Your task to perform on an android device: When is my next meeting? Image 0: 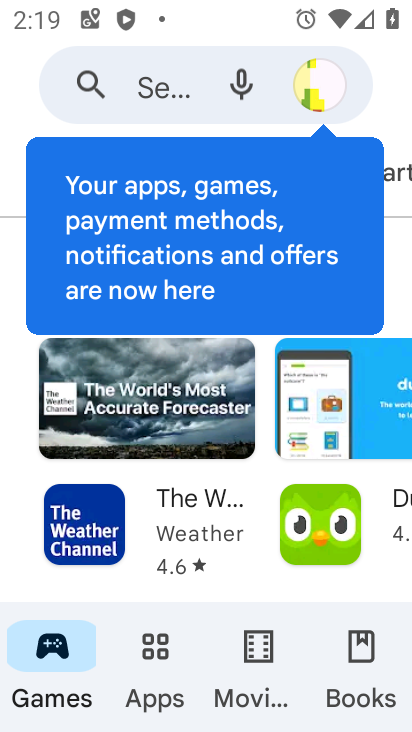
Step 0: press home button
Your task to perform on an android device: When is my next meeting? Image 1: 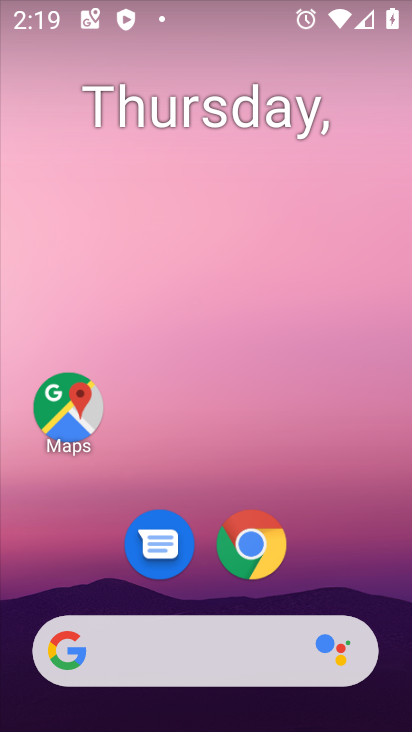
Step 1: drag from (215, 474) to (242, 154)
Your task to perform on an android device: When is my next meeting? Image 2: 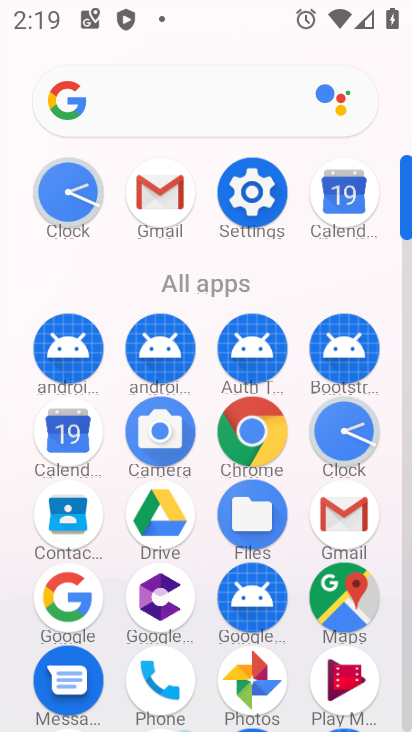
Step 2: click (320, 188)
Your task to perform on an android device: When is my next meeting? Image 3: 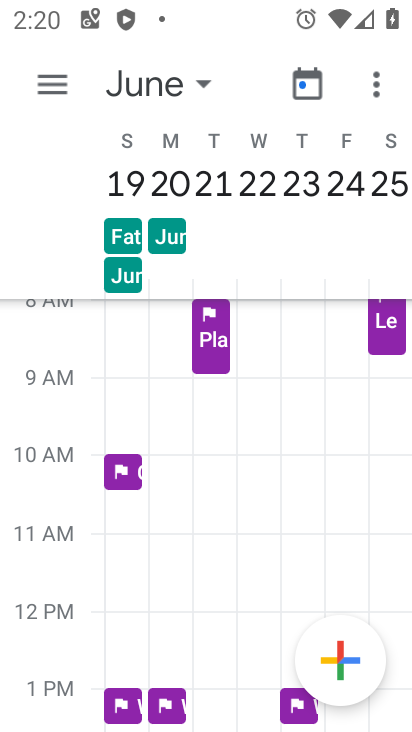
Step 3: click (171, 84)
Your task to perform on an android device: When is my next meeting? Image 4: 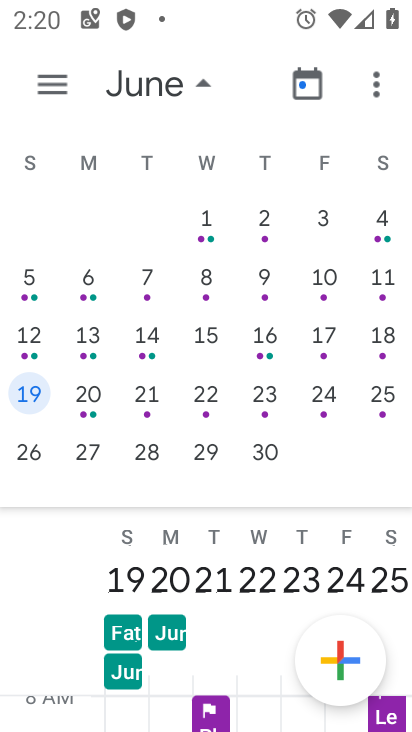
Step 4: drag from (41, 305) to (352, 308)
Your task to perform on an android device: When is my next meeting? Image 5: 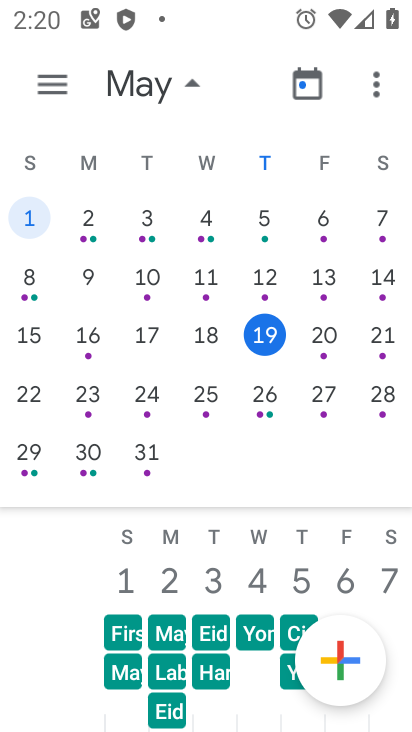
Step 5: click (310, 334)
Your task to perform on an android device: When is my next meeting? Image 6: 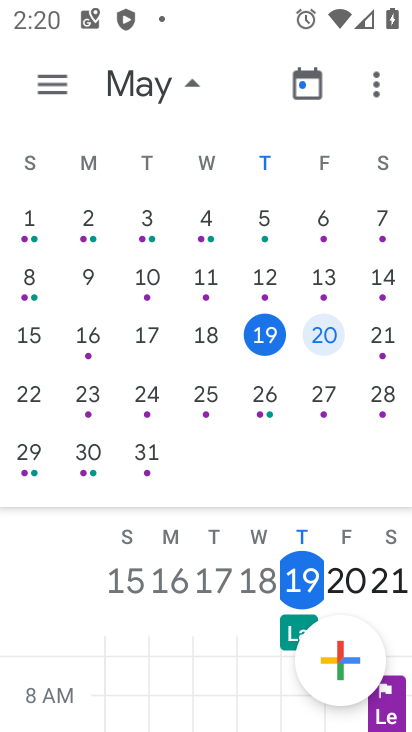
Step 6: click (345, 572)
Your task to perform on an android device: When is my next meeting? Image 7: 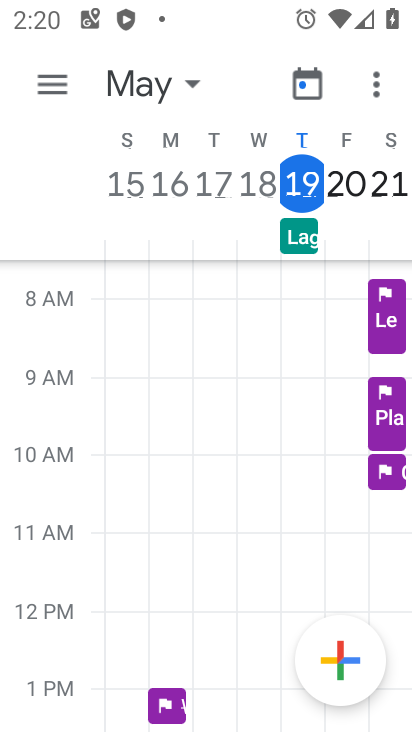
Step 7: task complete